Your task to perform on an android device: Open privacy settings Image 0: 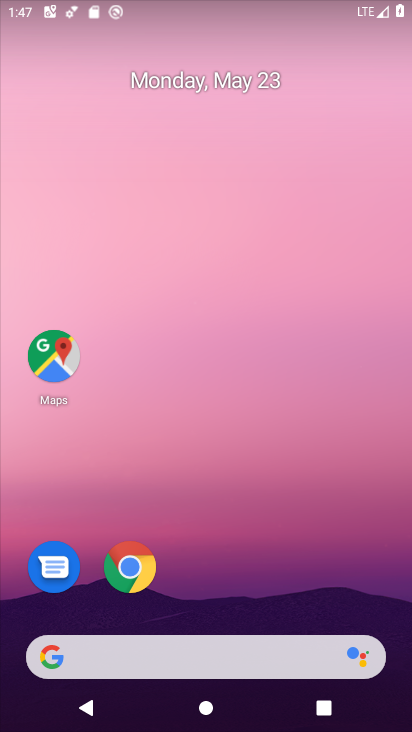
Step 0: drag from (235, 618) to (235, 261)
Your task to perform on an android device: Open privacy settings Image 1: 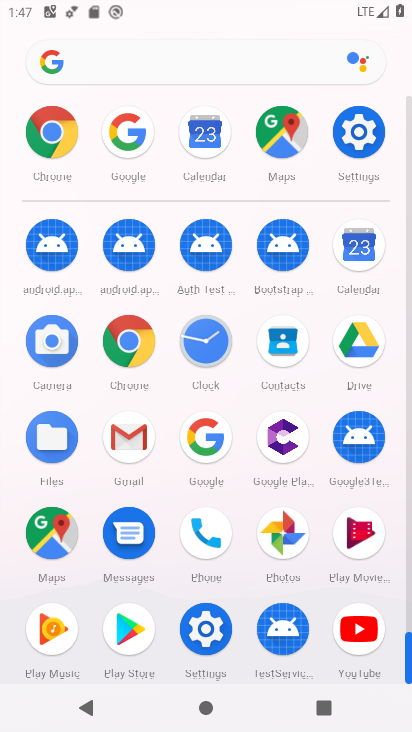
Step 1: click (350, 150)
Your task to perform on an android device: Open privacy settings Image 2: 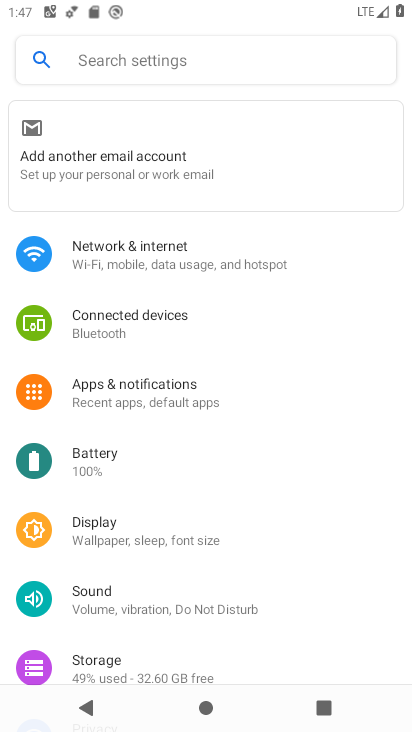
Step 2: drag from (133, 558) to (151, 426)
Your task to perform on an android device: Open privacy settings Image 3: 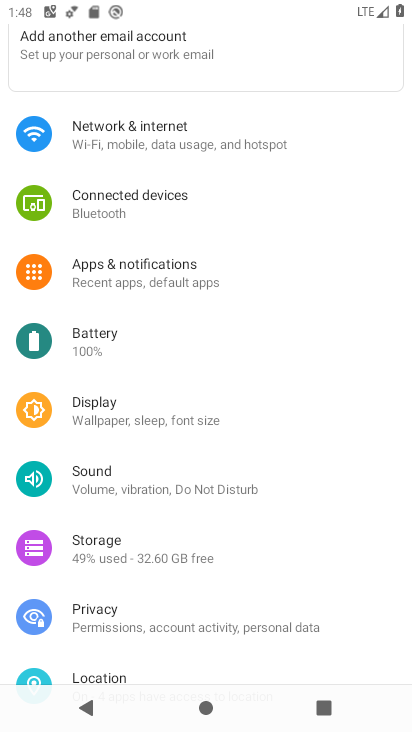
Step 3: click (132, 623)
Your task to perform on an android device: Open privacy settings Image 4: 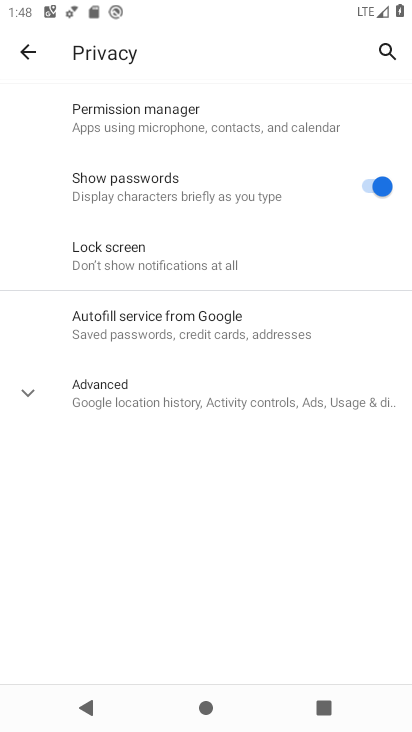
Step 4: task complete